Your task to perform on an android device: turn off airplane mode Image 0: 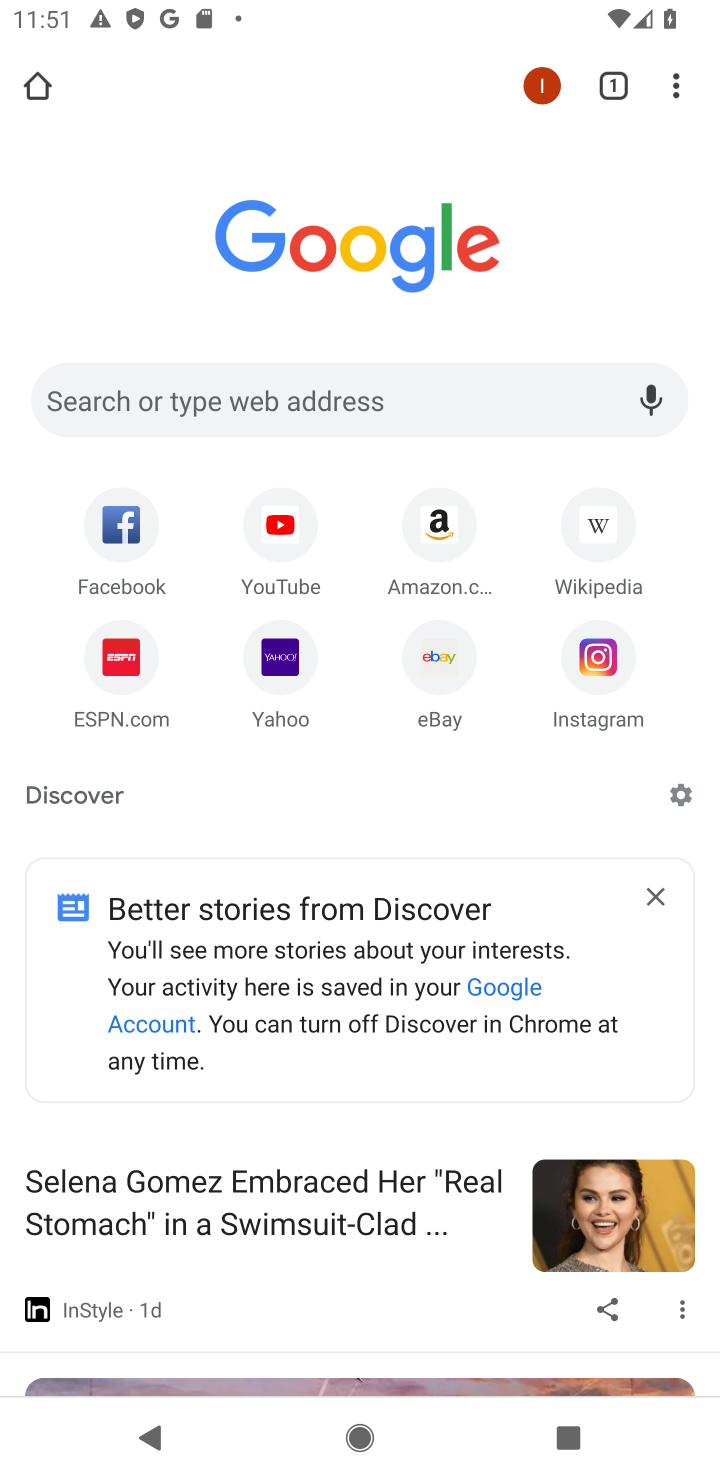
Step 0: press home button
Your task to perform on an android device: turn off airplane mode Image 1: 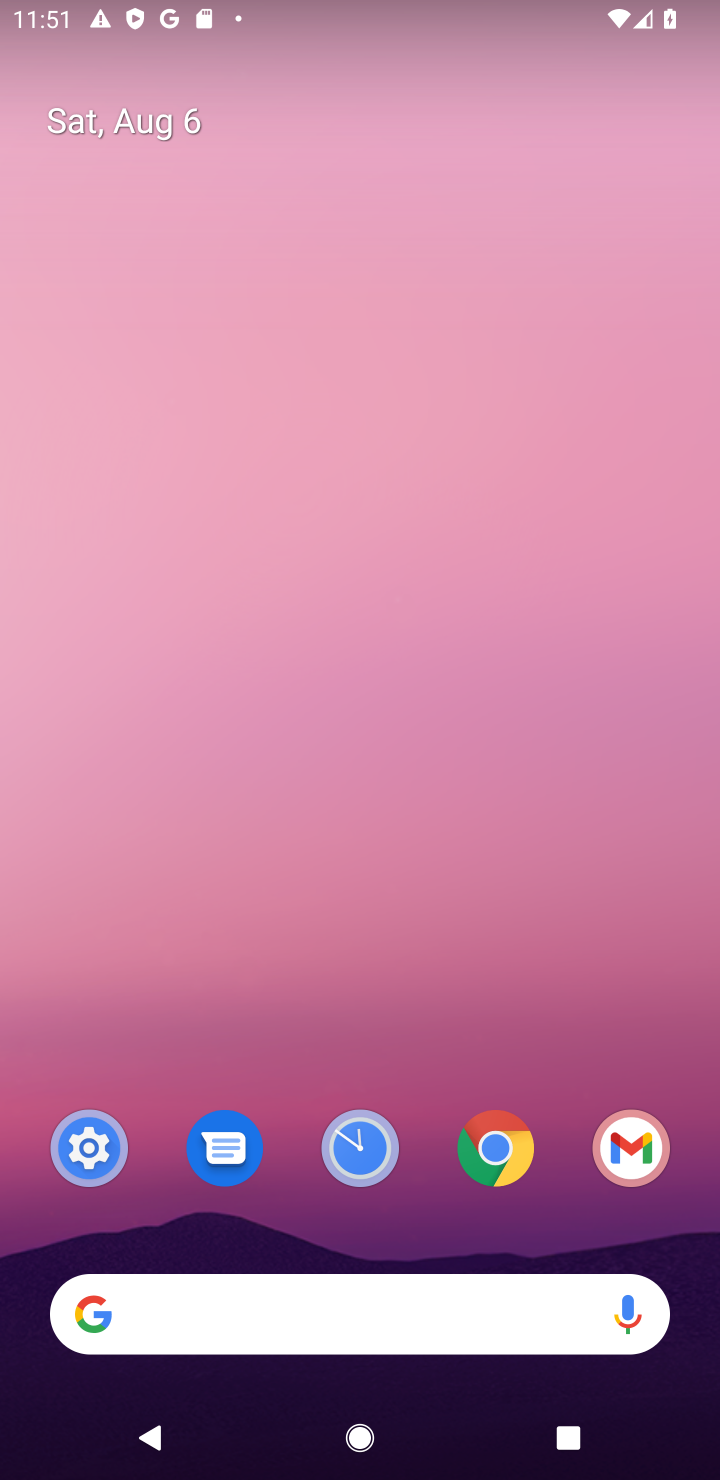
Step 1: click (90, 1152)
Your task to perform on an android device: turn off airplane mode Image 2: 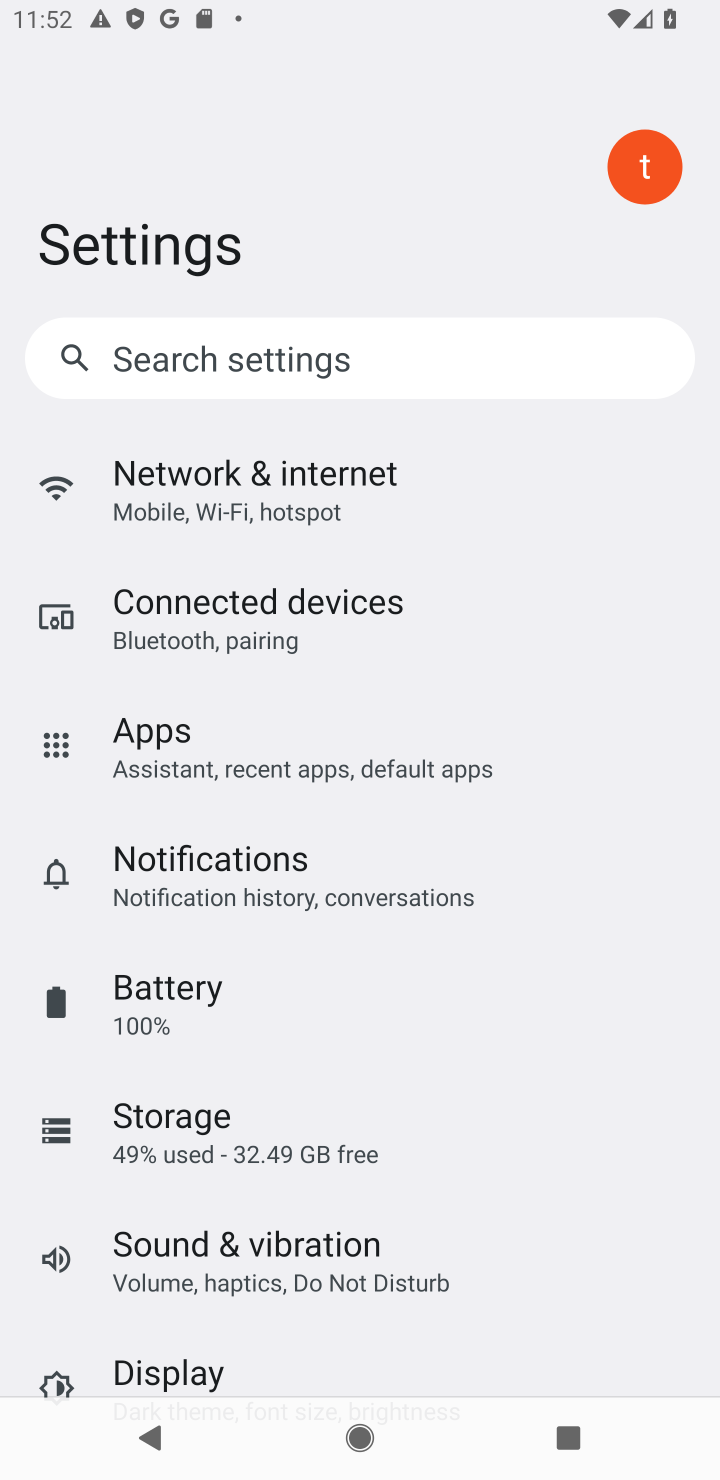
Step 2: click (260, 459)
Your task to perform on an android device: turn off airplane mode Image 3: 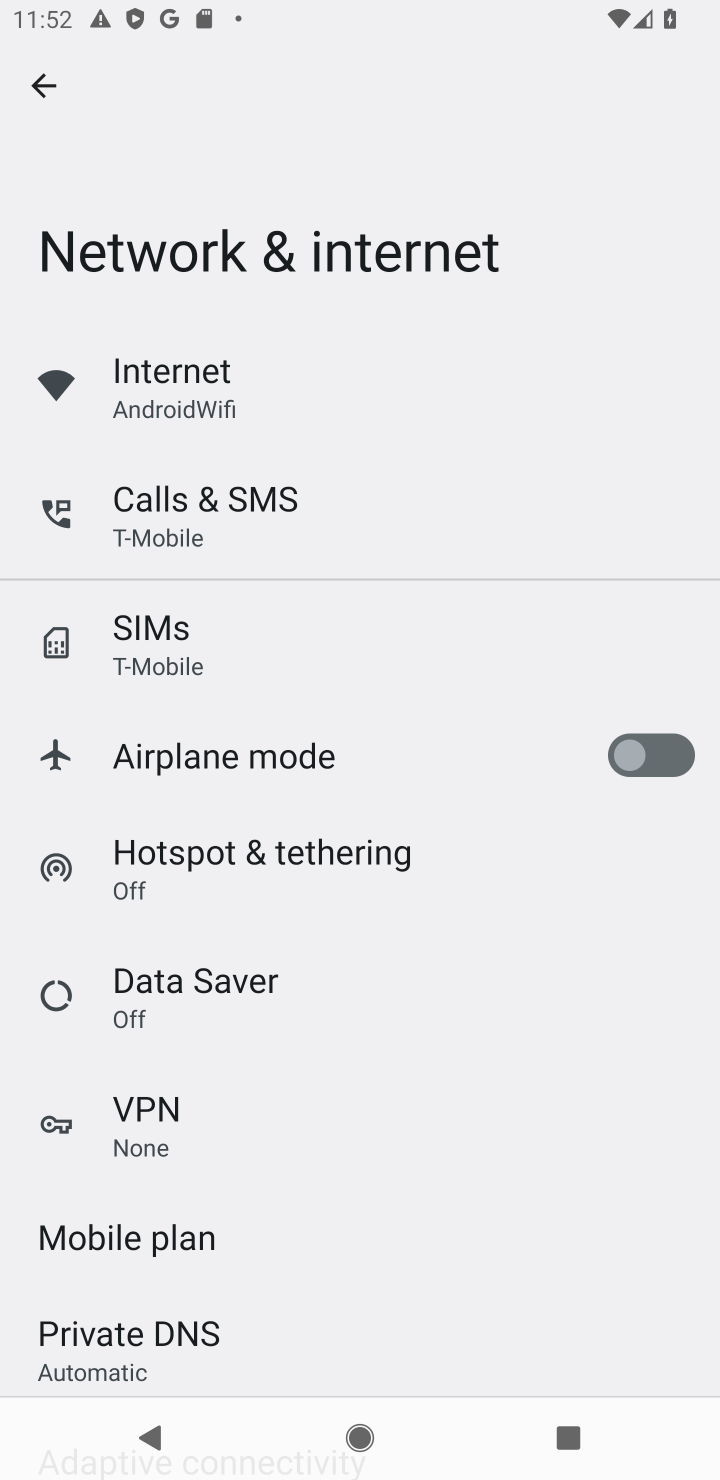
Step 3: click (164, 375)
Your task to perform on an android device: turn off airplane mode Image 4: 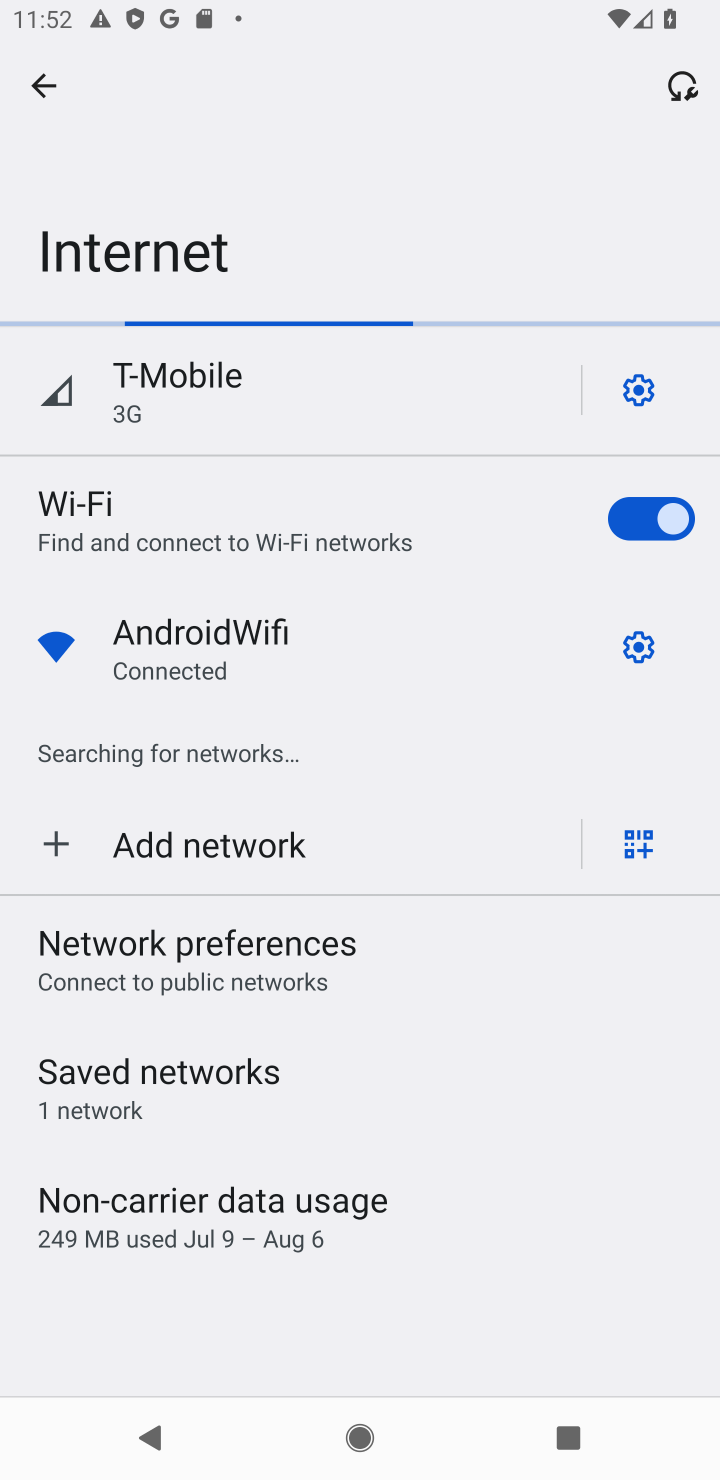
Step 4: click (36, 68)
Your task to perform on an android device: turn off airplane mode Image 5: 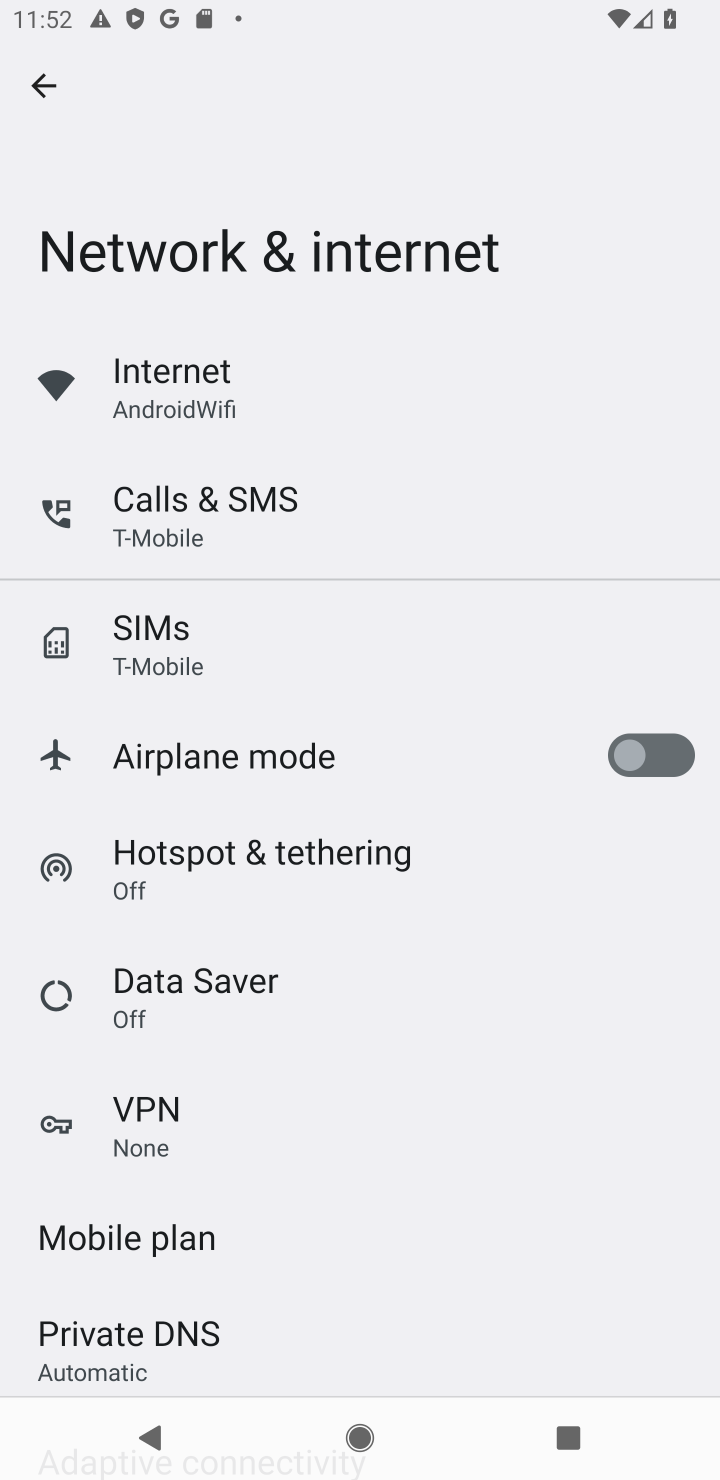
Step 5: task complete